Your task to perform on an android device: Go to privacy settings Image 0: 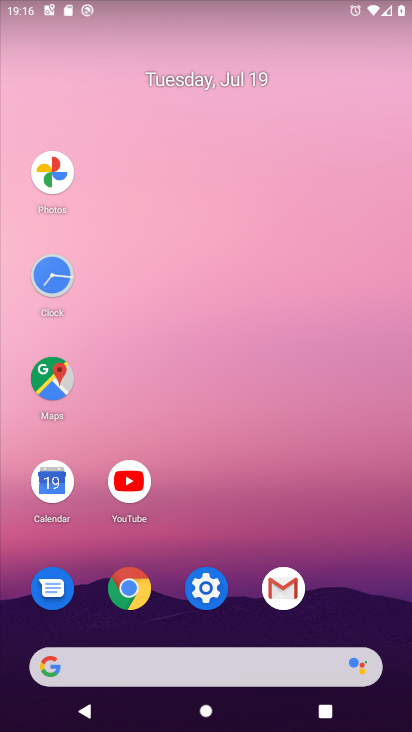
Step 0: click (212, 592)
Your task to perform on an android device: Go to privacy settings Image 1: 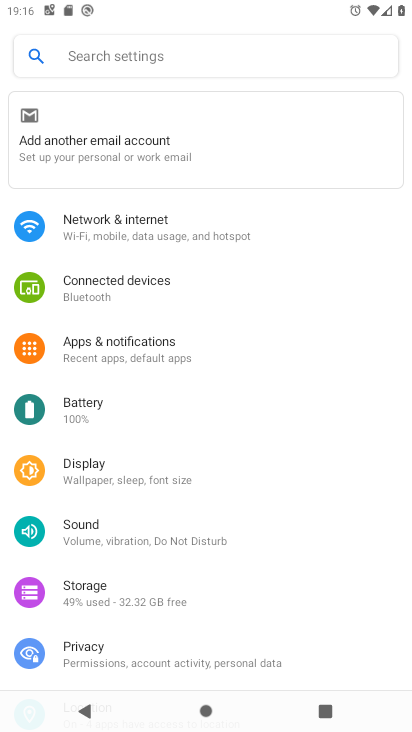
Step 1: click (84, 654)
Your task to perform on an android device: Go to privacy settings Image 2: 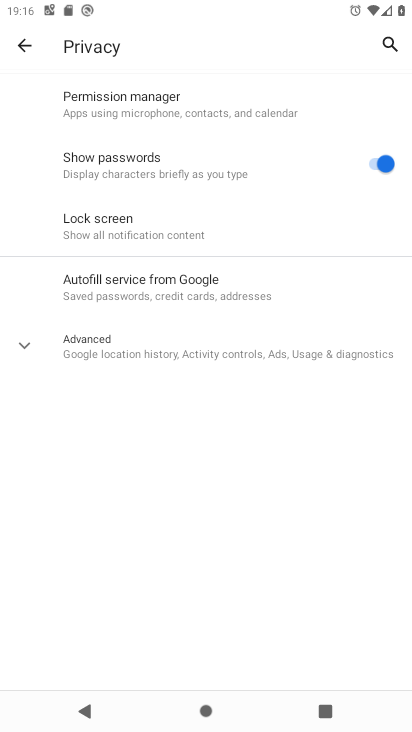
Step 2: task complete